Your task to perform on an android device: turn on javascript in the chrome app Image 0: 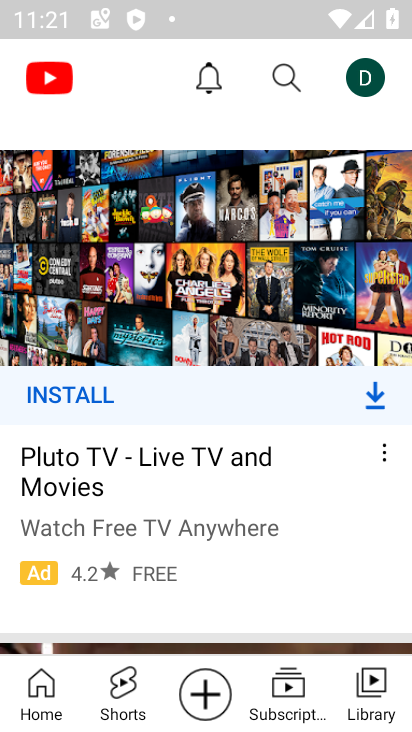
Step 0: press home button
Your task to perform on an android device: turn on javascript in the chrome app Image 1: 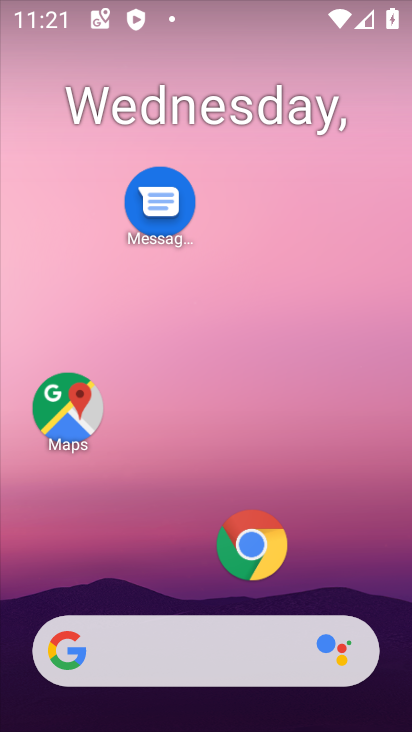
Step 1: click (229, 543)
Your task to perform on an android device: turn on javascript in the chrome app Image 2: 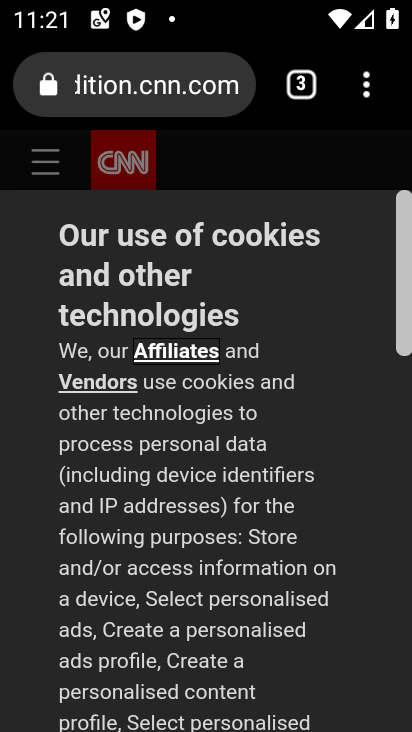
Step 2: drag from (369, 88) to (159, 576)
Your task to perform on an android device: turn on javascript in the chrome app Image 3: 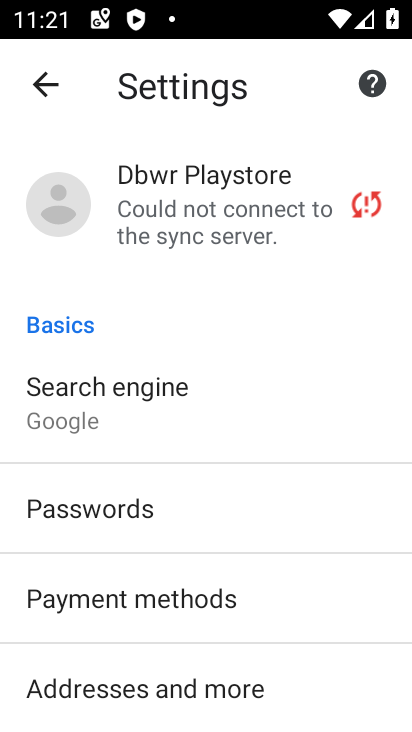
Step 3: drag from (144, 630) to (144, 386)
Your task to perform on an android device: turn on javascript in the chrome app Image 4: 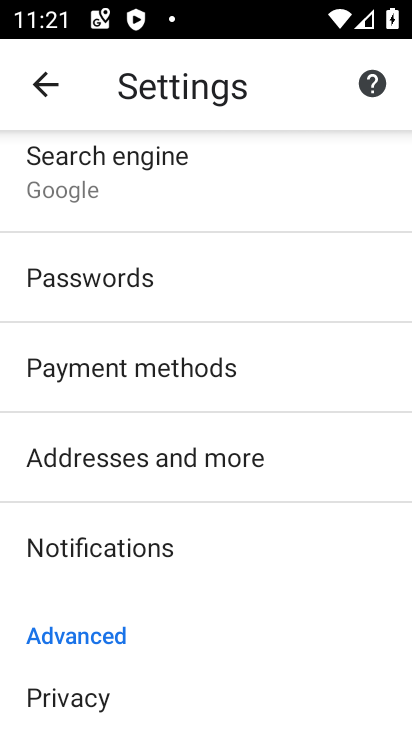
Step 4: drag from (203, 626) to (223, 354)
Your task to perform on an android device: turn on javascript in the chrome app Image 5: 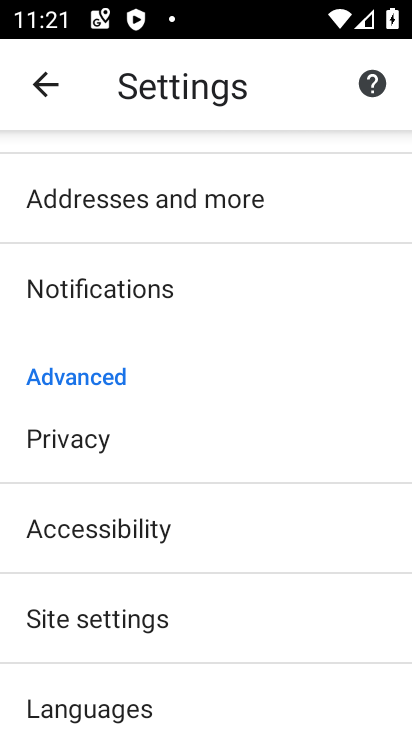
Step 5: click (147, 604)
Your task to perform on an android device: turn on javascript in the chrome app Image 6: 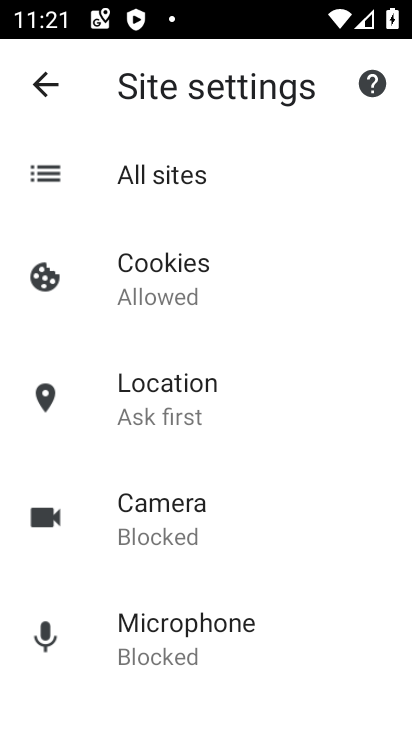
Step 6: drag from (188, 639) to (193, 336)
Your task to perform on an android device: turn on javascript in the chrome app Image 7: 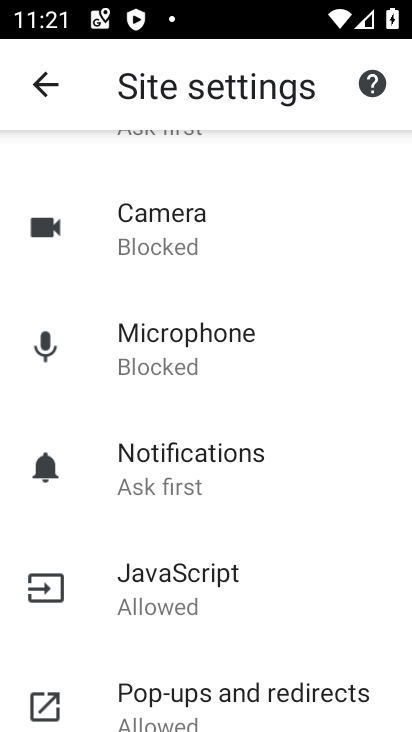
Step 7: click (205, 584)
Your task to perform on an android device: turn on javascript in the chrome app Image 8: 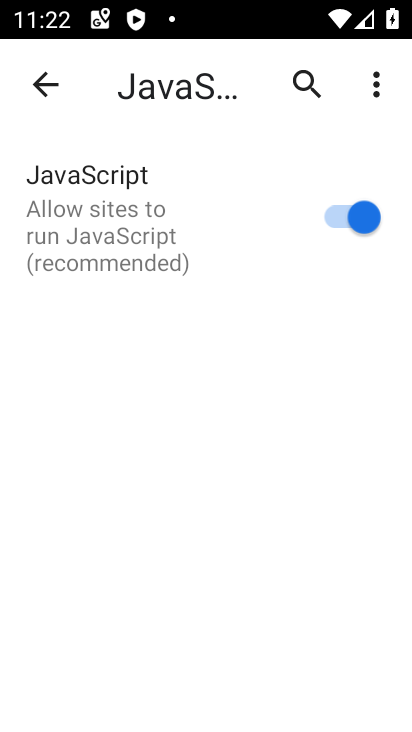
Step 8: task complete